Your task to perform on an android device: When is my next meeting? Image 0: 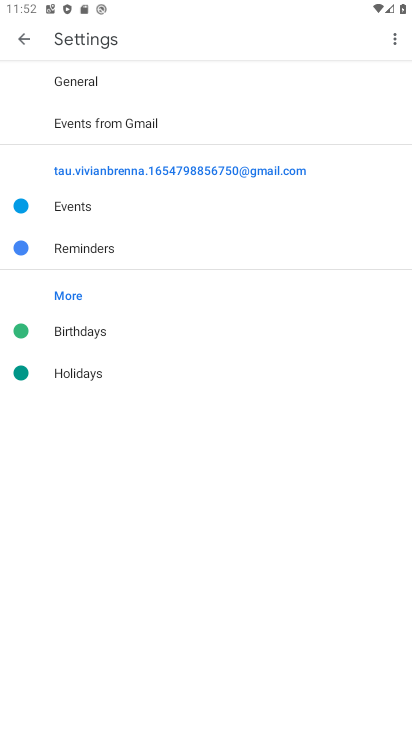
Step 0: press home button
Your task to perform on an android device: When is my next meeting? Image 1: 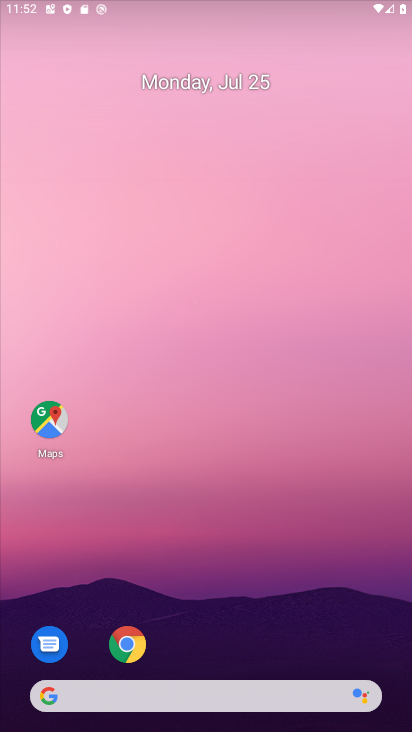
Step 1: drag from (192, 671) to (212, 134)
Your task to perform on an android device: When is my next meeting? Image 2: 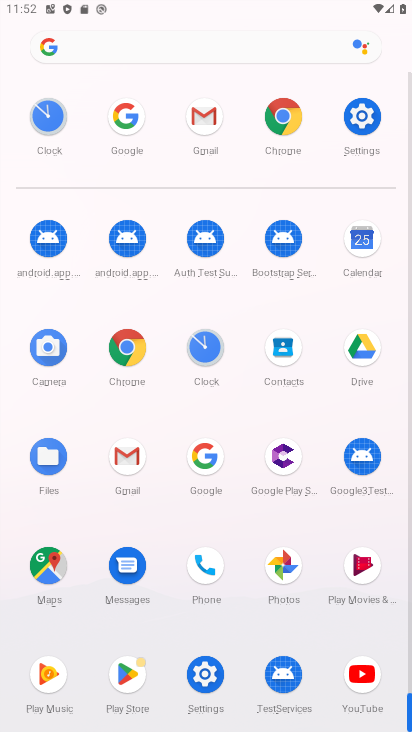
Step 2: click (366, 241)
Your task to perform on an android device: When is my next meeting? Image 3: 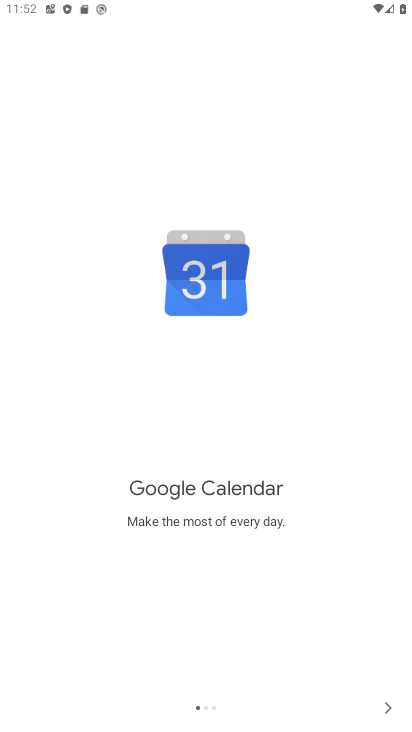
Step 3: click (400, 699)
Your task to perform on an android device: When is my next meeting? Image 4: 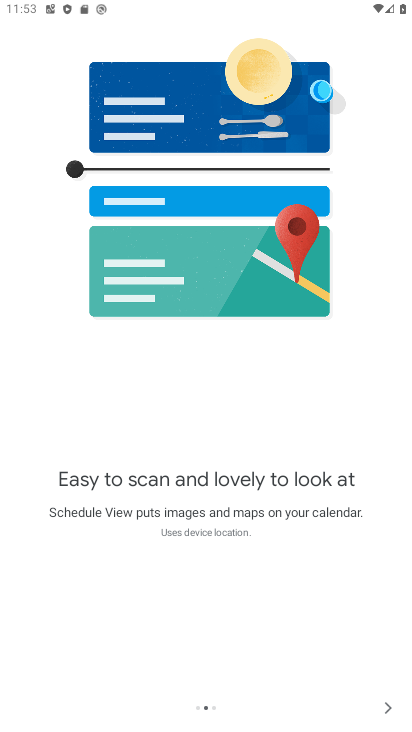
Step 4: click (386, 703)
Your task to perform on an android device: When is my next meeting? Image 5: 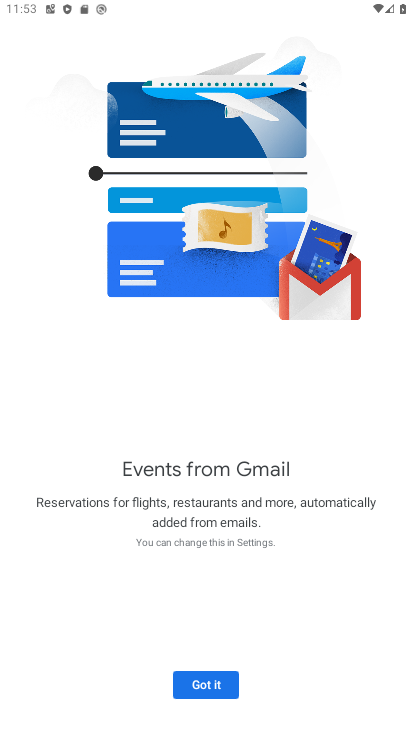
Step 5: click (212, 666)
Your task to perform on an android device: When is my next meeting? Image 6: 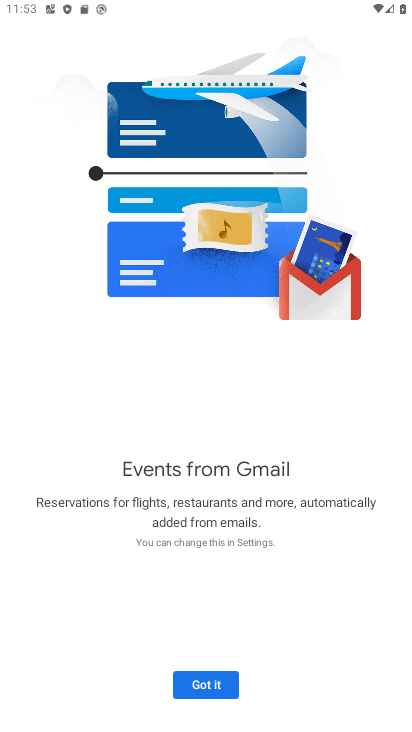
Step 6: click (212, 675)
Your task to perform on an android device: When is my next meeting? Image 7: 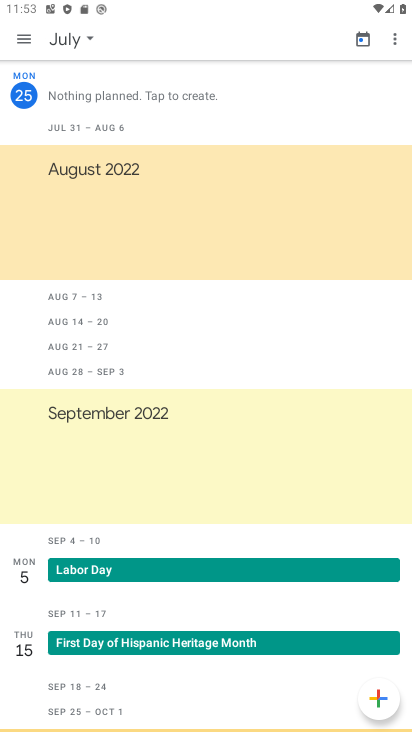
Step 7: click (27, 45)
Your task to perform on an android device: When is my next meeting? Image 8: 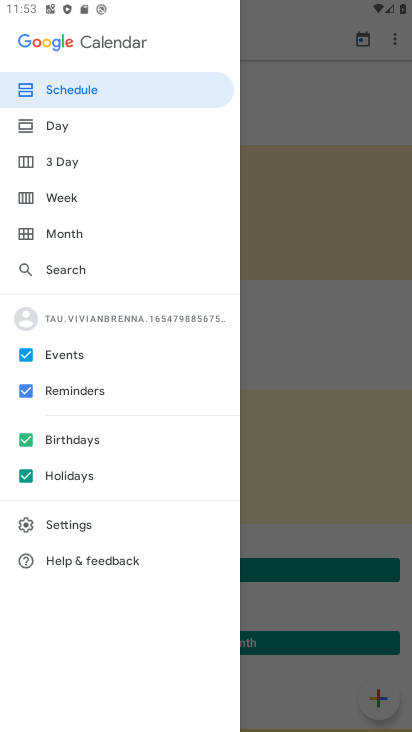
Step 8: click (69, 478)
Your task to perform on an android device: When is my next meeting? Image 9: 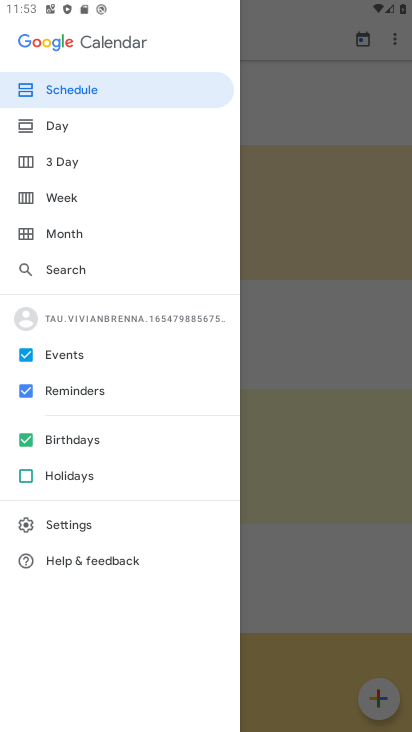
Step 9: click (88, 440)
Your task to perform on an android device: When is my next meeting? Image 10: 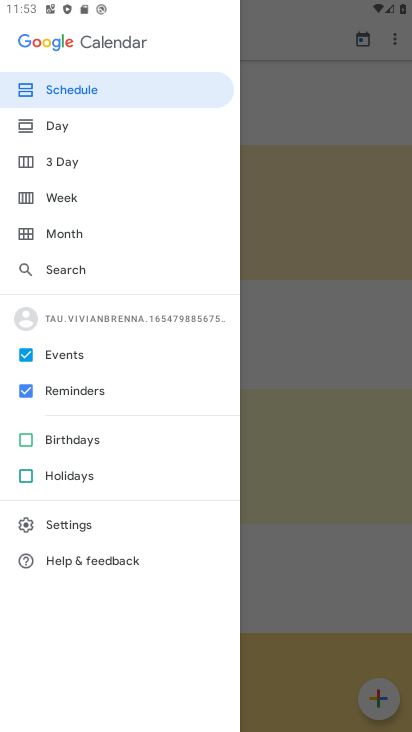
Step 10: click (313, 591)
Your task to perform on an android device: When is my next meeting? Image 11: 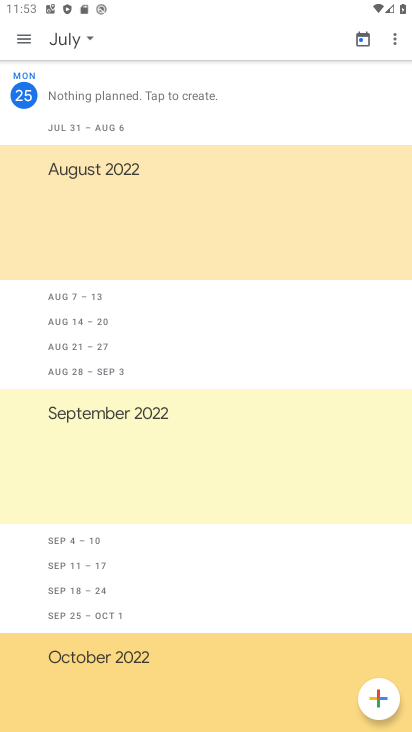
Step 11: task complete